Your task to perform on an android device: read, delete, or share a saved page in the chrome app Image 0: 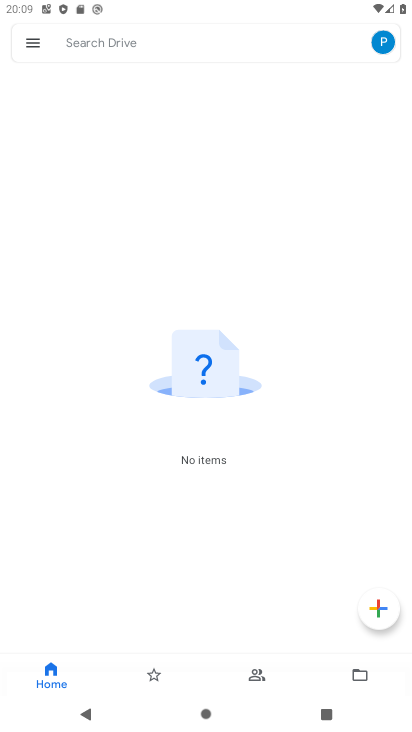
Step 0: press home button
Your task to perform on an android device: read, delete, or share a saved page in the chrome app Image 1: 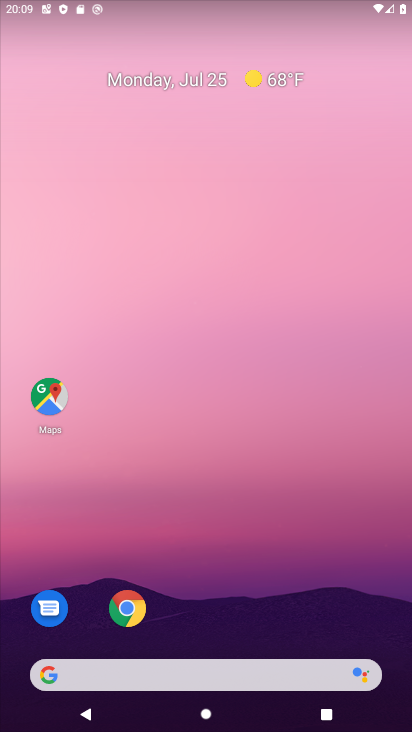
Step 1: click (139, 606)
Your task to perform on an android device: read, delete, or share a saved page in the chrome app Image 2: 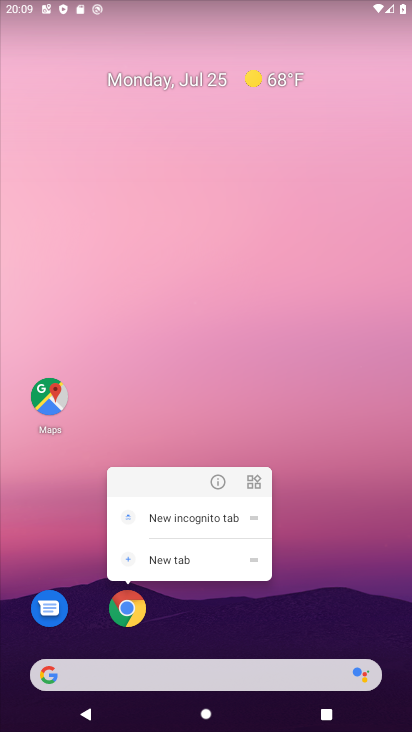
Step 2: click (140, 609)
Your task to perform on an android device: read, delete, or share a saved page in the chrome app Image 3: 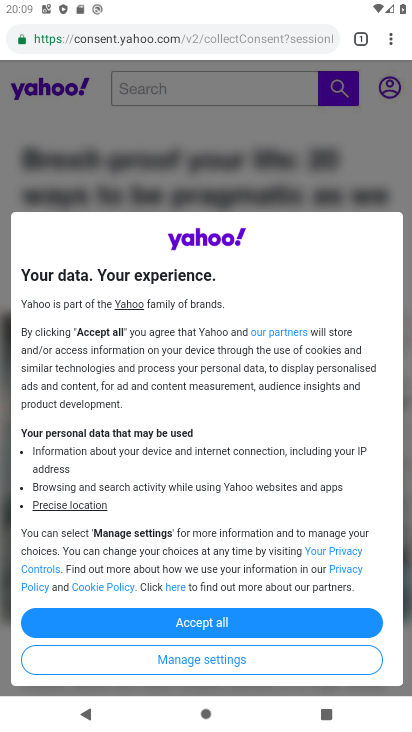
Step 3: click (393, 34)
Your task to perform on an android device: read, delete, or share a saved page in the chrome app Image 4: 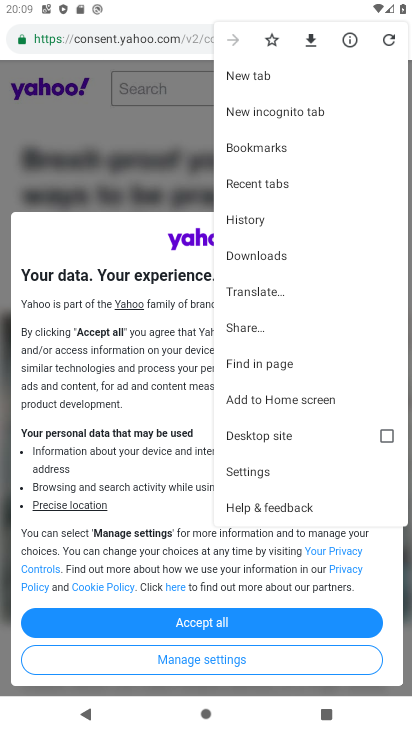
Step 4: click (254, 253)
Your task to perform on an android device: read, delete, or share a saved page in the chrome app Image 5: 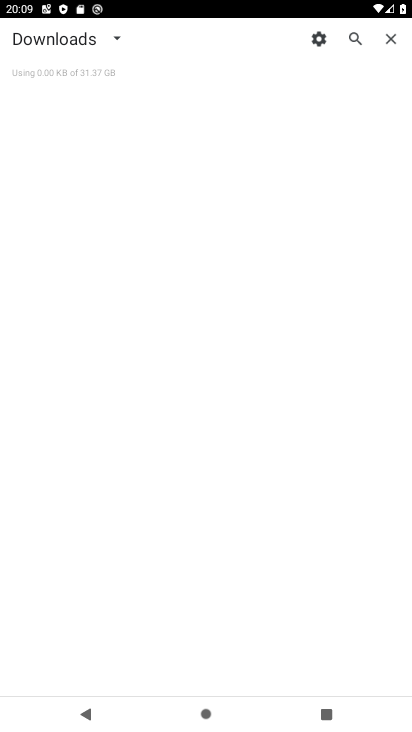
Step 5: click (123, 44)
Your task to perform on an android device: read, delete, or share a saved page in the chrome app Image 6: 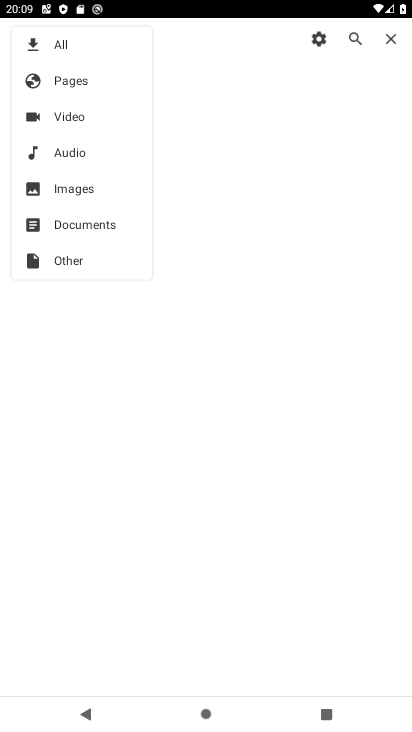
Step 6: click (79, 79)
Your task to perform on an android device: read, delete, or share a saved page in the chrome app Image 7: 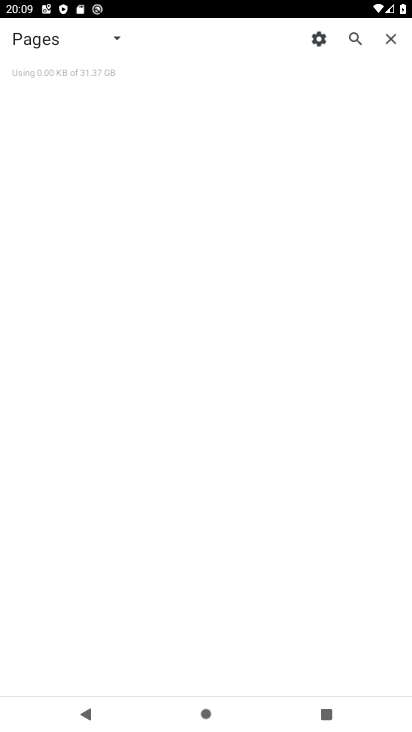
Step 7: task complete